Your task to perform on an android device: turn on javascript in the chrome app Image 0: 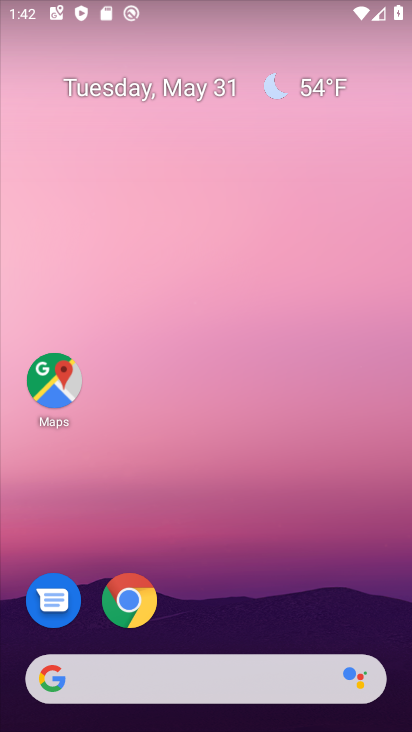
Step 0: click (133, 595)
Your task to perform on an android device: turn on javascript in the chrome app Image 1: 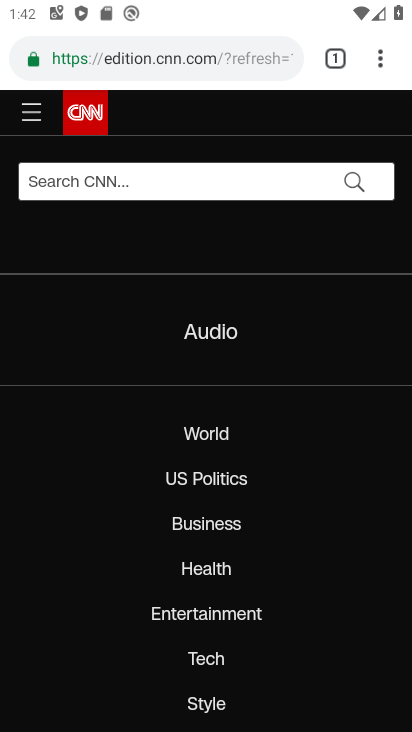
Step 1: click (382, 49)
Your task to perform on an android device: turn on javascript in the chrome app Image 2: 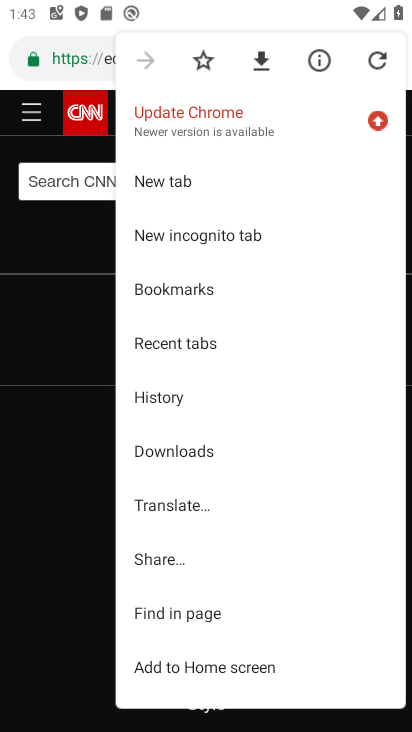
Step 2: drag from (306, 579) to (217, 55)
Your task to perform on an android device: turn on javascript in the chrome app Image 3: 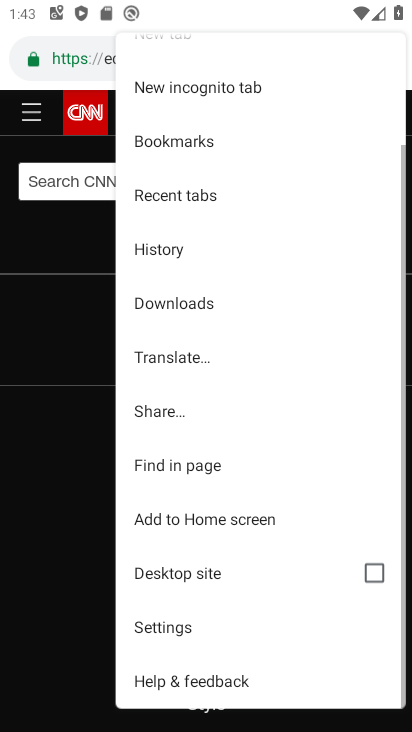
Step 3: click (217, 617)
Your task to perform on an android device: turn on javascript in the chrome app Image 4: 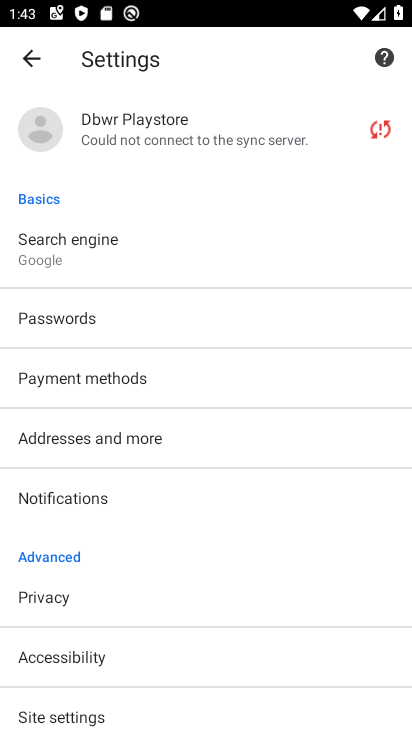
Step 4: click (131, 715)
Your task to perform on an android device: turn on javascript in the chrome app Image 5: 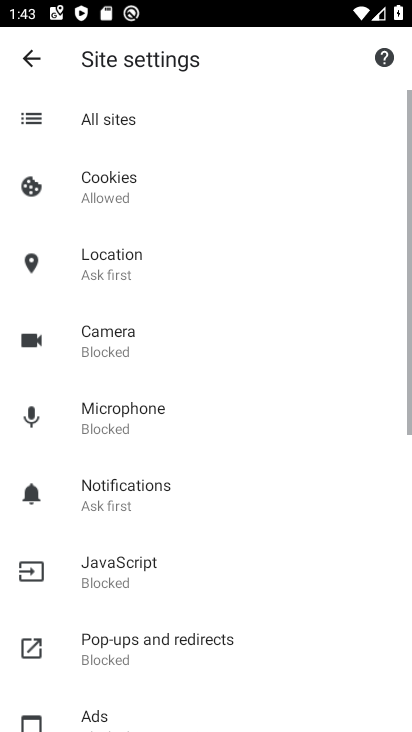
Step 5: click (164, 574)
Your task to perform on an android device: turn on javascript in the chrome app Image 6: 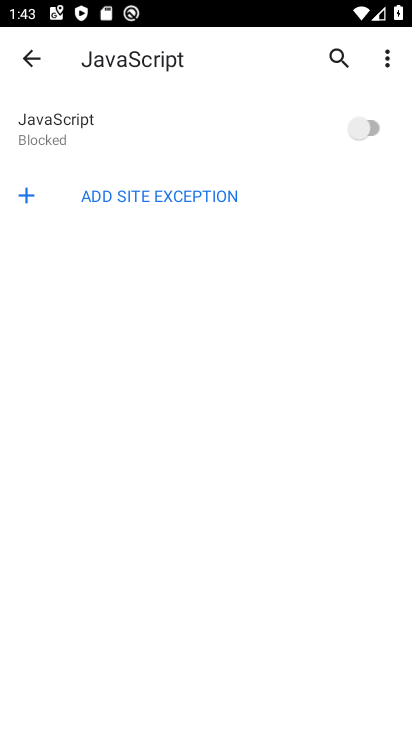
Step 6: click (359, 131)
Your task to perform on an android device: turn on javascript in the chrome app Image 7: 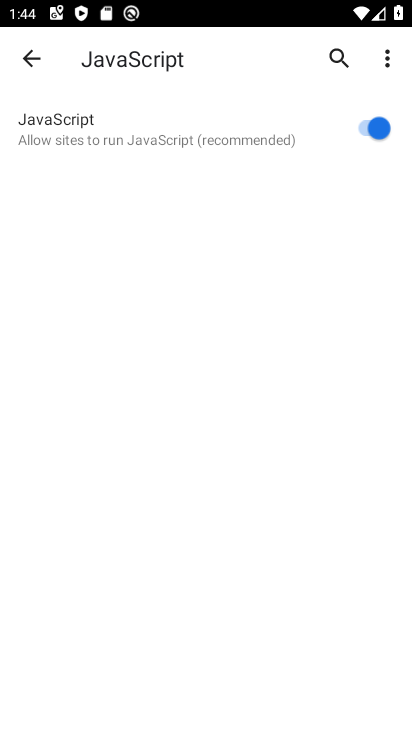
Step 7: task complete